Your task to perform on an android device: Search for seafood restaurants on Google Maps Image 0: 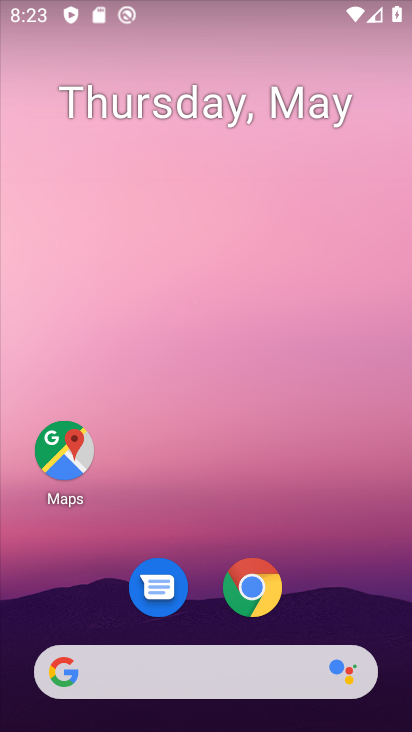
Step 0: click (86, 455)
Your task to perform on an android device: Search for seafood restaurants on Google Maps Image 1: 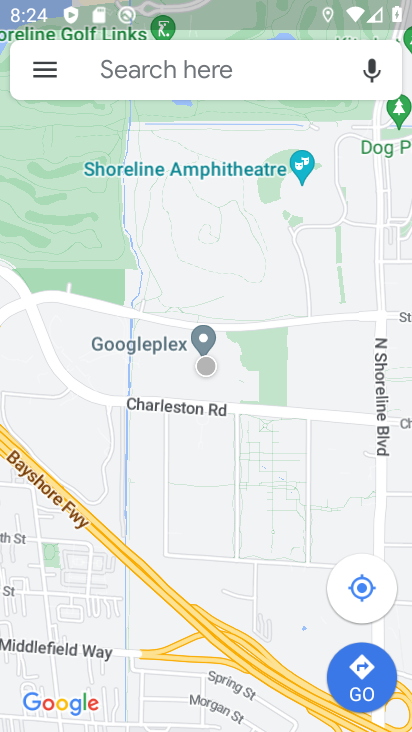
Step 1: click (233, 79)
Your task to perform on an android device: Search for seafood restaurants on Google Maps Image 2: 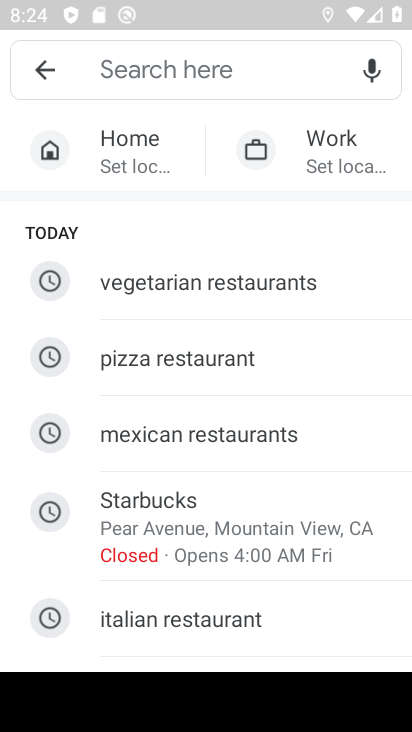
Step 2: drag from (341, 593) to (312, 244)
Your task to perform on an android device: Search for seafood restaurants on Google Maps Image 3: 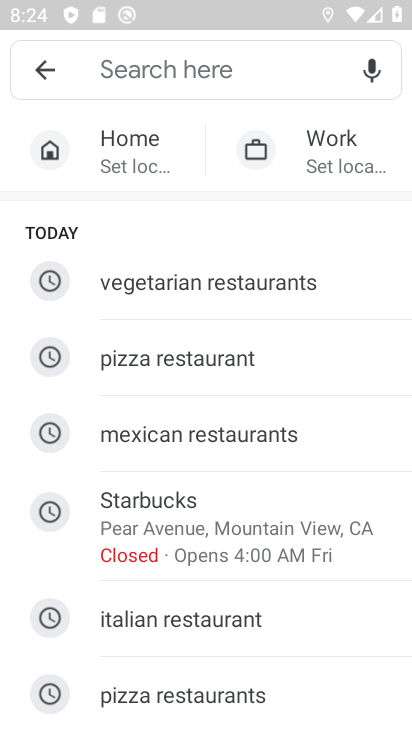
Step 3: type "seafood restaurants"
Your task to perform on an android device: Search for seafood restaurants on Google Maps Image 4: 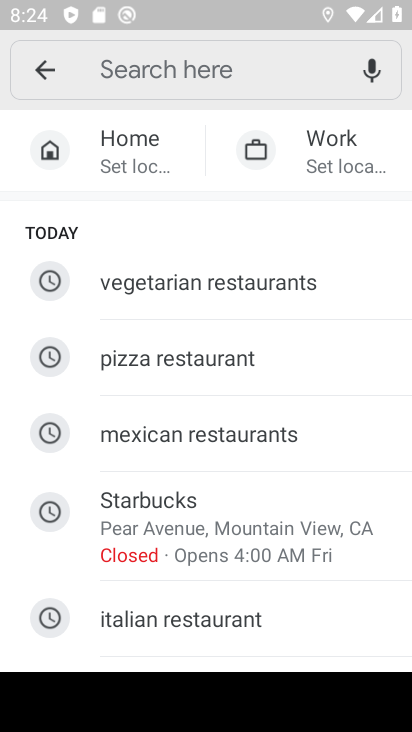
Step 4: drag from (342, 620) to (340, 364)
Your task to perform on an android device: Search for seafood restaurants on Google Maps Image 5: 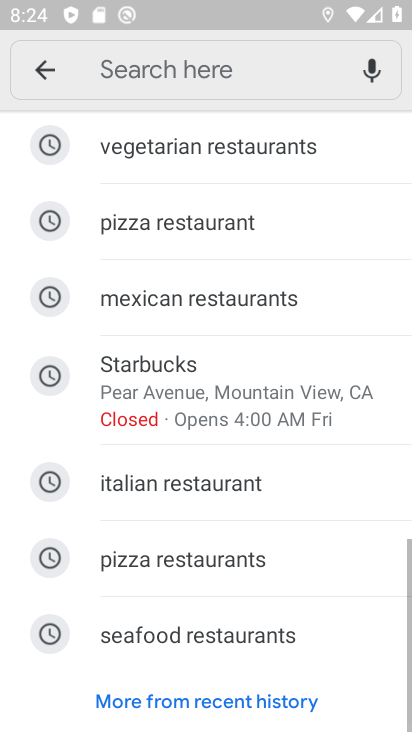
Step 5: click (272, 71)
Your task to perform on an android device: Search for seafood restaurants on Google Maps Image 6: 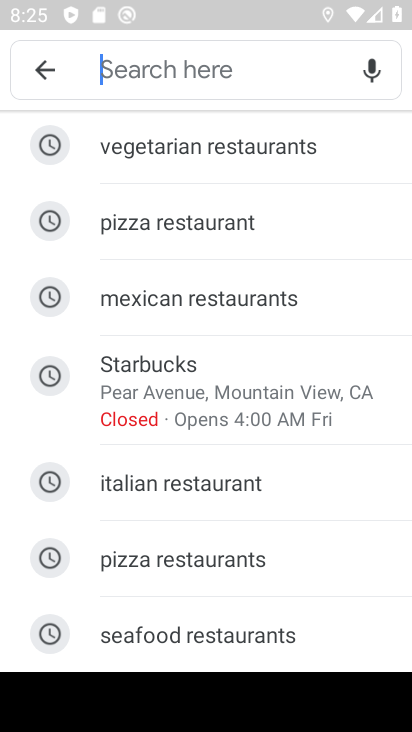
Step 6: type "seafood restaurants"
Your task to perform on an android device: Search for seafood restaurants on Google Maps Image 7: 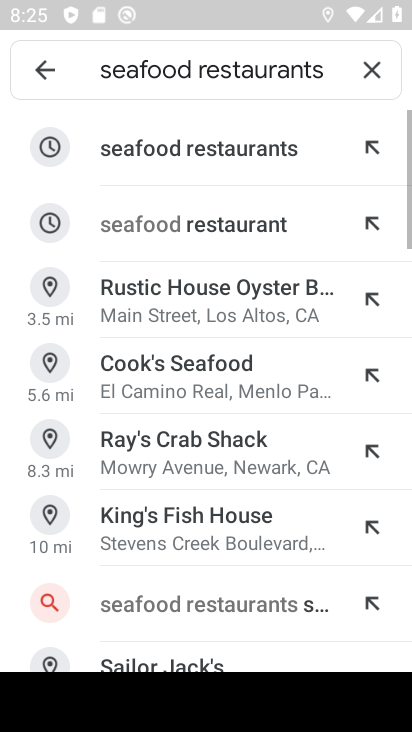
Step 7: click (254, 149)
Your task to perform on an android device: Search for seafood restaurants on Google Maps Image 8: 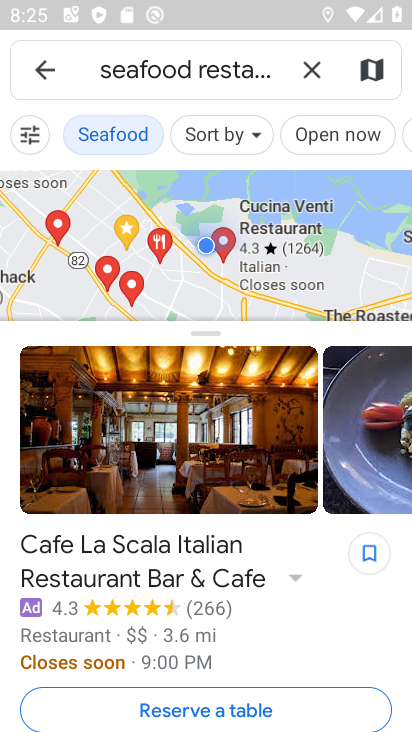
Step 8: task complete